Your task to perform on an android device: turn on javascript in the chrome app Image 0: 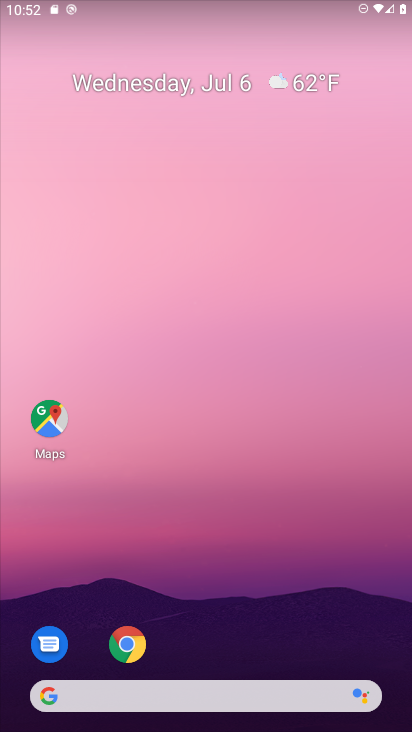
Step 0: press home button
Your task to perform on an android device: turn on javascript in the chrome app Image 1: 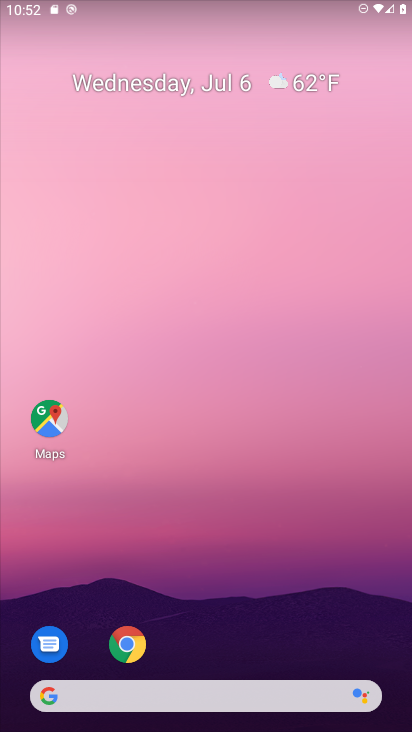
Step 1: click (124, 653)
Your task to perform on an android device: turn on javascript in the chrome app Image 2: 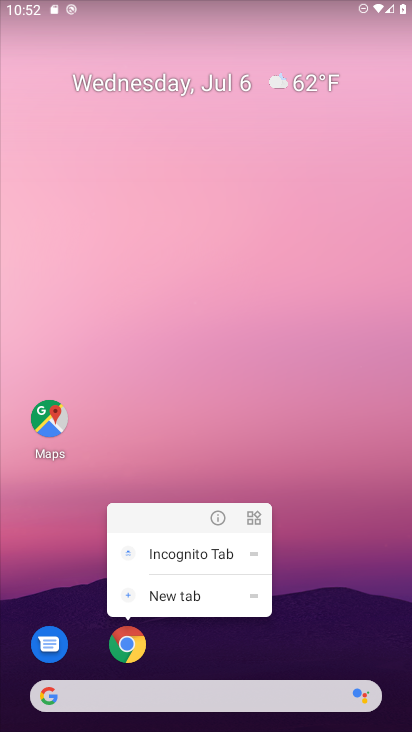
Step 2: click (124, 653)
Your task to perform on an android device: turn on javascript in the chrome app Image 3: 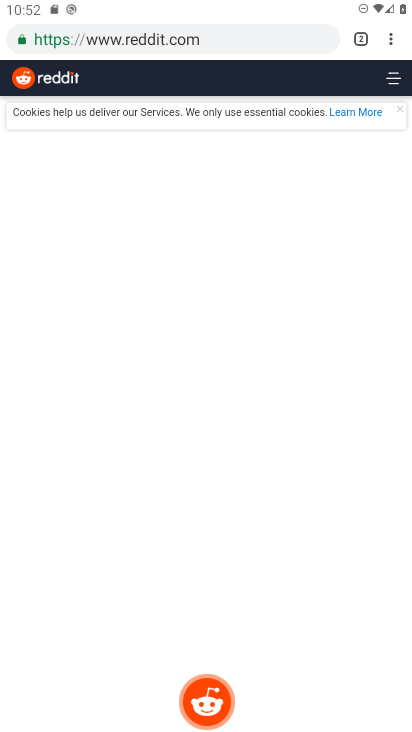
Step 3: drag from (386, 38) to (277, 469)
Your task to perform on an android device: turn on javascript in the chrome app Image 4: 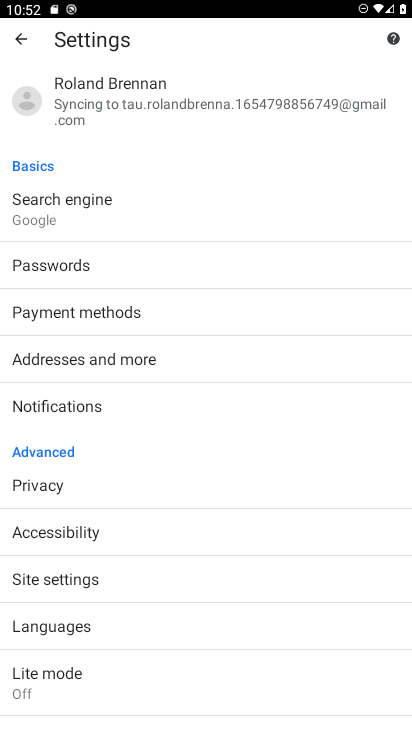
Step 4: click (50, 576)
Your task to perform on an android device: turn on javascript in the chrome app Image 5: 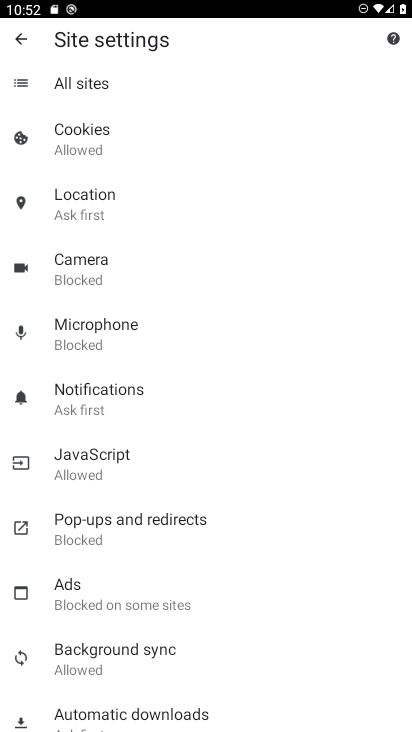
Step 5: click (72, 466)
Your task to perform on an android device: turn on javascript in the chrome app Image 6: 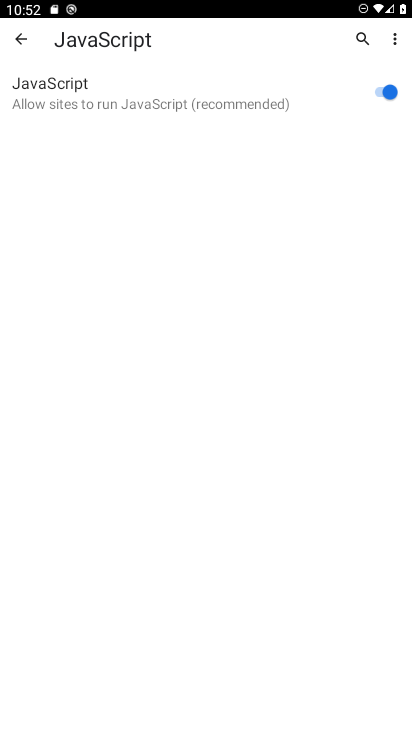
Step 6: task complete